Your task to perform on an android device: Open Wikipedia Image 0: 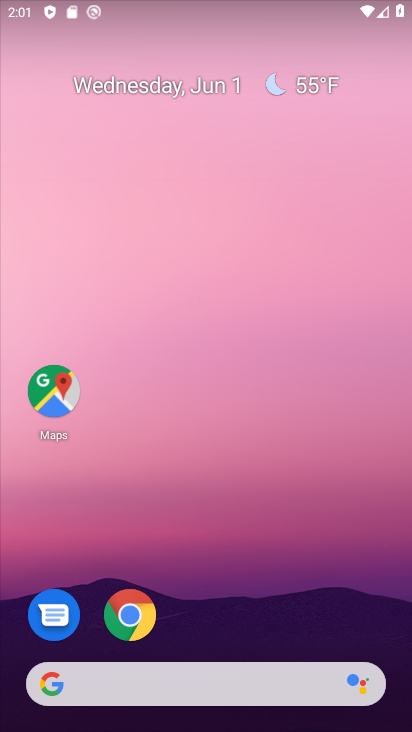
Step 0: click (117, 629)
Your task to perform on an android device: Open Wikipedia Image 1: 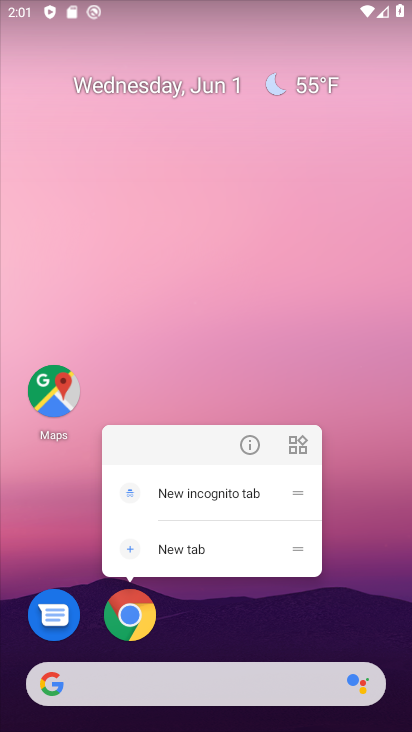
Step 1: click (119, 627)
Your task to perform on an android device: Open Wikipedia Image 2: 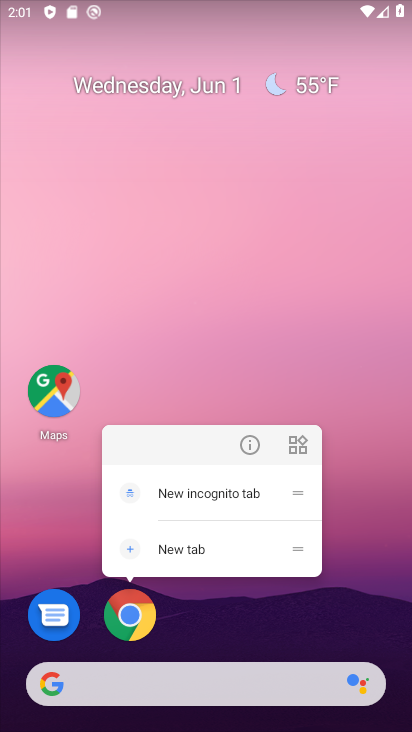
Step 2: click (127, 614)
Your task to perform on an android device: Open Wikipedia Image 3: 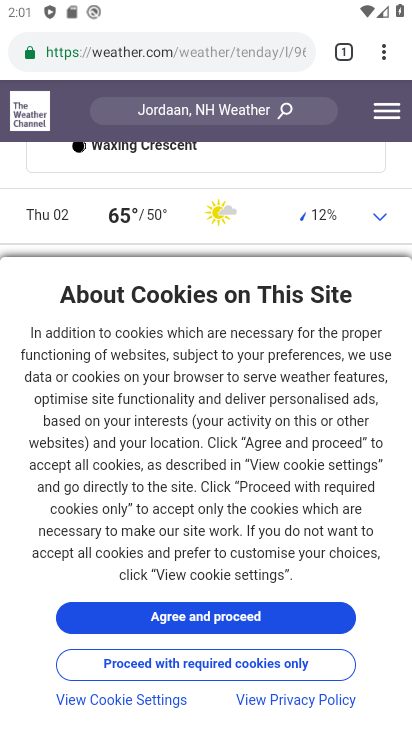
Step 3: drag from (386, 37) to (361, 92)
Your task to perform on an android device: Open Wikipedia Image 4: 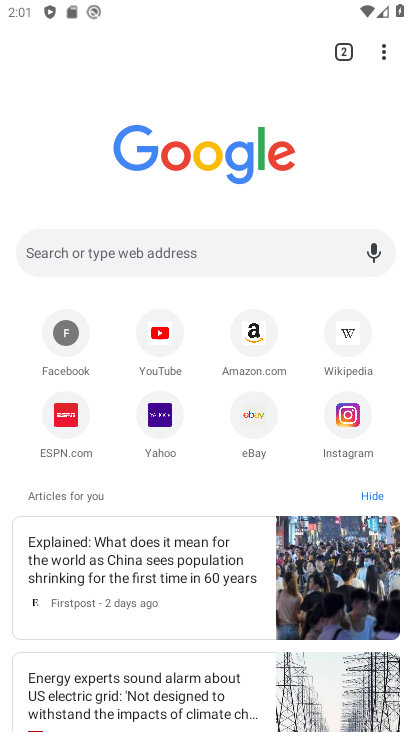
Step 4: click (347, 331)
Your task to perform on an android device: Open Wikipedia Image 5: 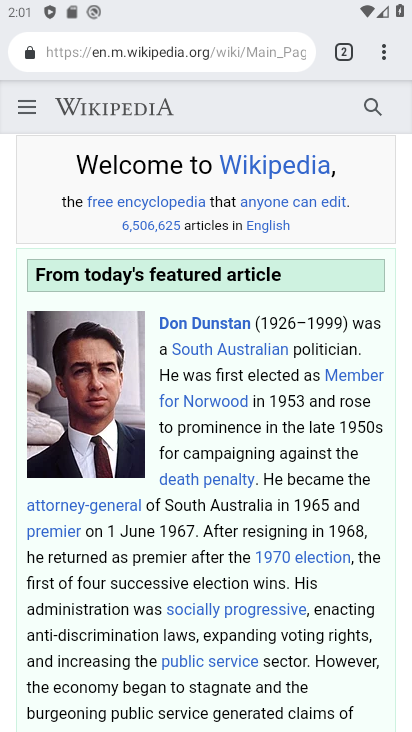
Step 5: task complete